Your task to perform on an android device: remove spam from my inbox in the gmail app Image 0: 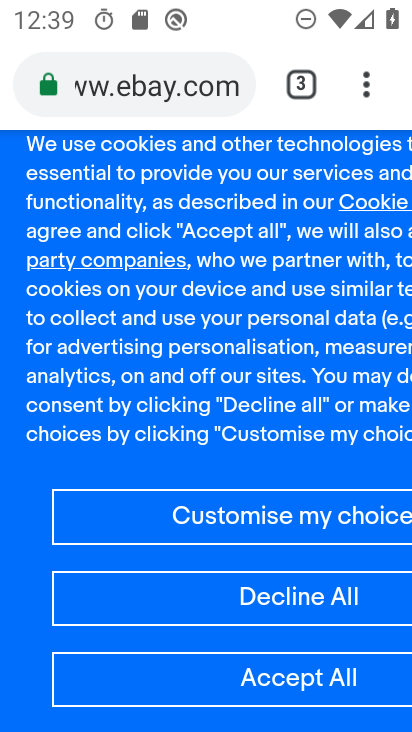
Step 0: press home button
Your task to perform on an android device: remove spam from my inbox in the gmail app Image 1: 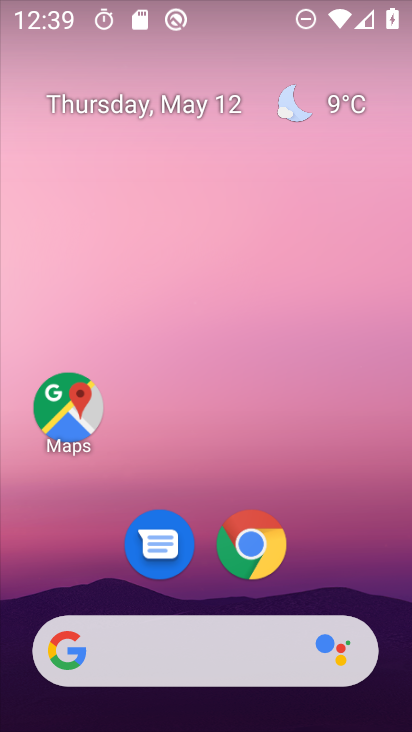
Step 1: drag from (216, 720) to (187, 186)
Your task to perform on an android device: remove spam from my inbox in the gmail app Image 2: 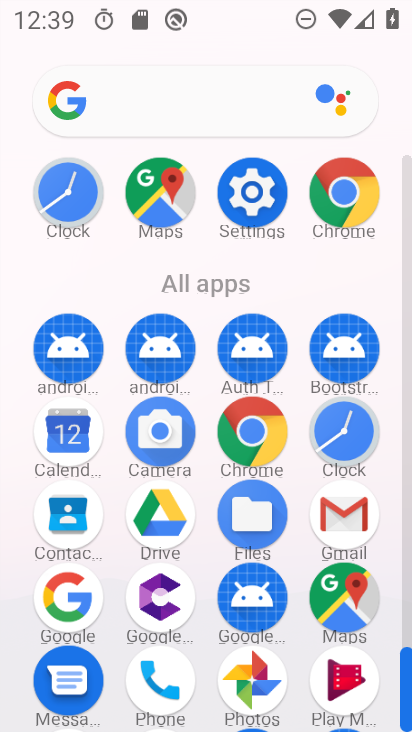
Step 2: click (351, 504)
Your task to perform on an android device: remove spam from my inbox in the gmail app Image 3: 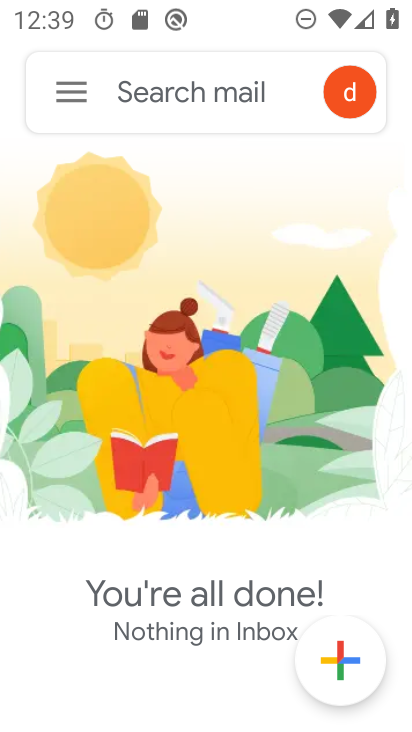
Step 3: task complete